Your task to perform on an android device: add a contact Image 0: 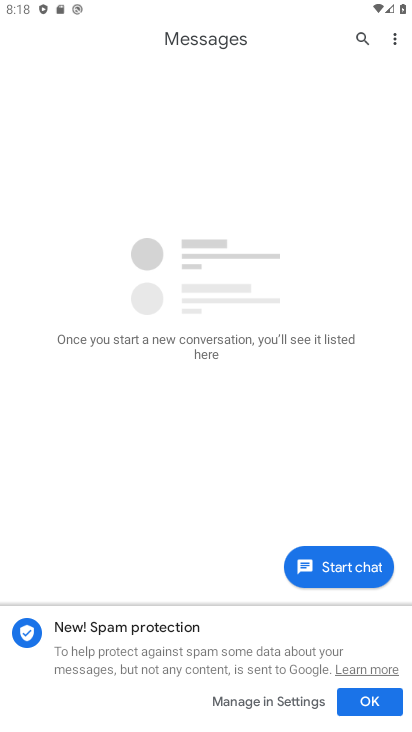
Step 0: press home button
Your task to perform on an android device: add a contact Image 1: 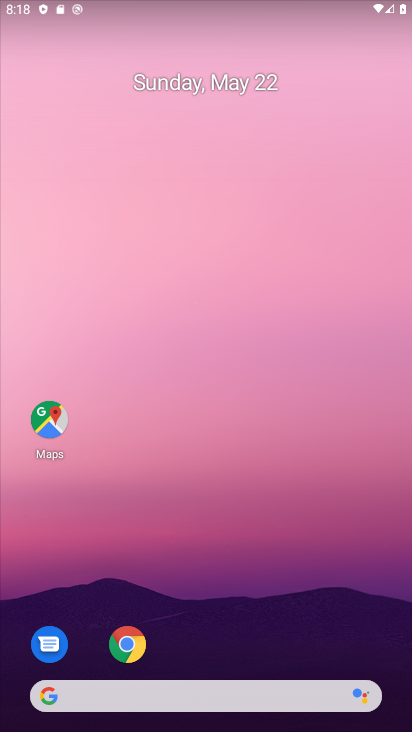
Step 1: drag from (217, 689) to (172, 302)
Your task to perform on an android device: add a contact Image 2: 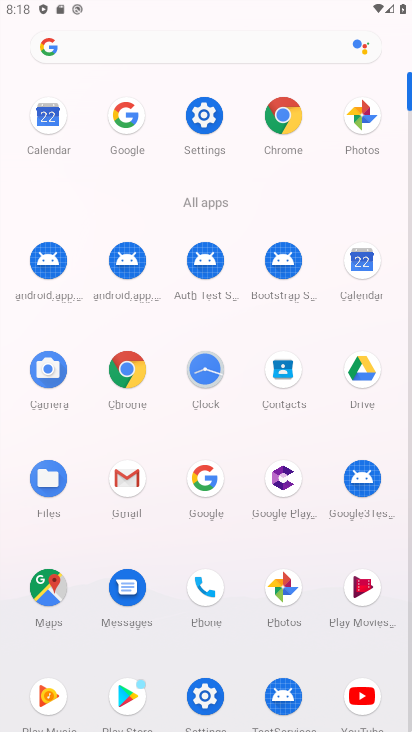
Step 2: click (280, 372)
Your task to perform on an android device: add a contact Image 3: 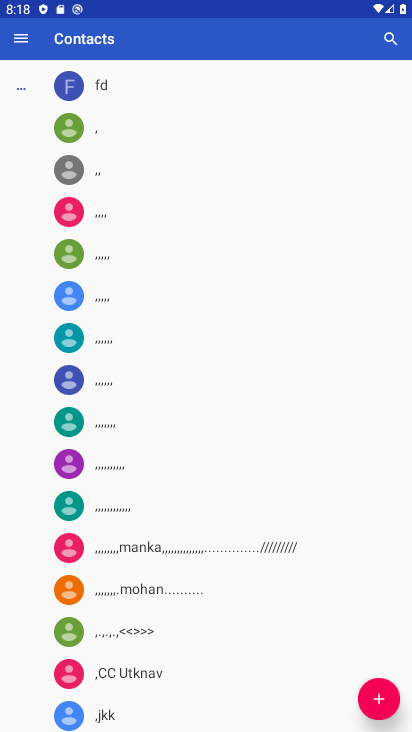
Step 3: click (378, 696)
Your task to perform on an android device: add a contact Image 4: 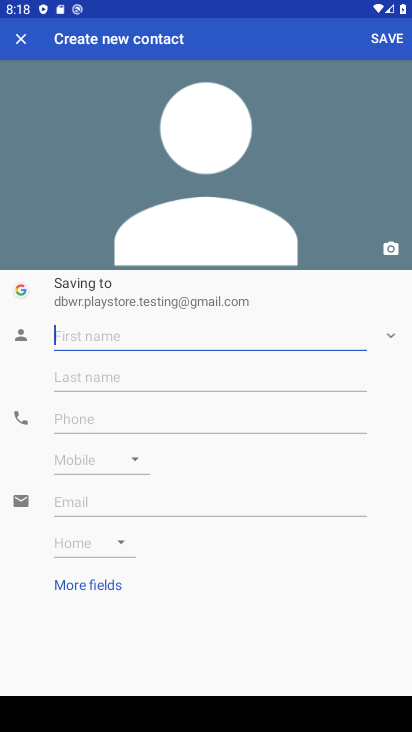
Step 4: type "bmvmx"
Your task to perform on an android device: add a contact Image 5: 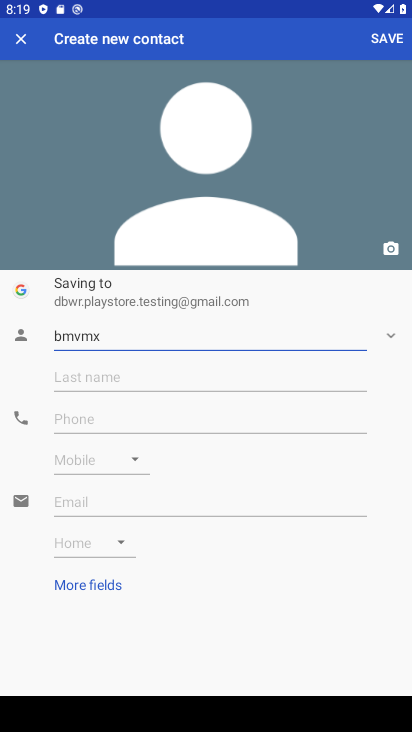
Step 5: click (159, 416)
Your task to perform on an android device: add a contact Image 6: 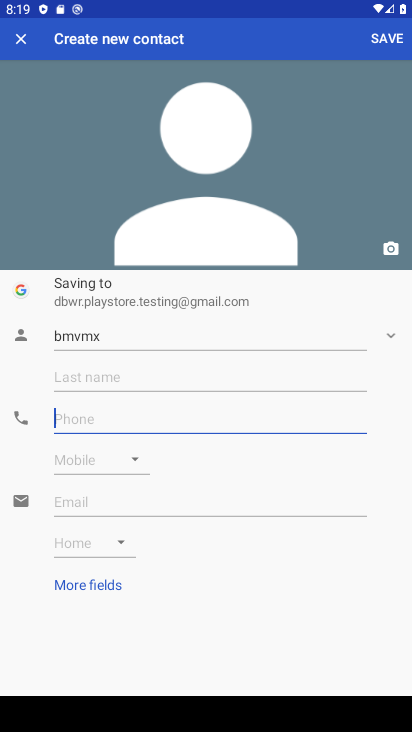
Step 6: type "457689"
Your task to perform on an android device: add a contact Image 7: 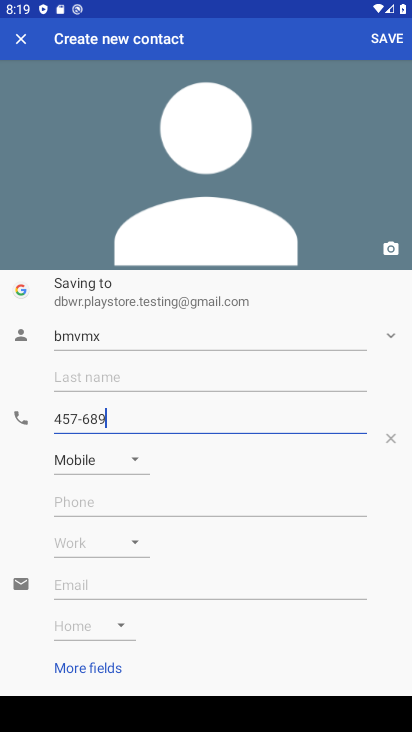
Step 7: click (394, 32)
Your task to perform on an android device: add a contact Image 8: 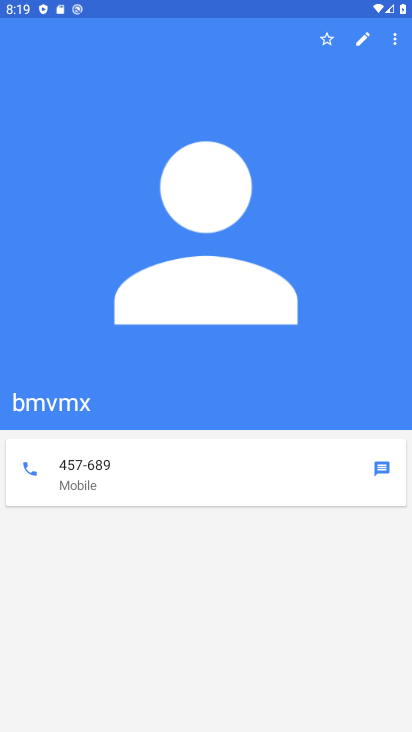
Step 8: task complete